Your task to perform on an android device: clear history in the chrome app Image 0: 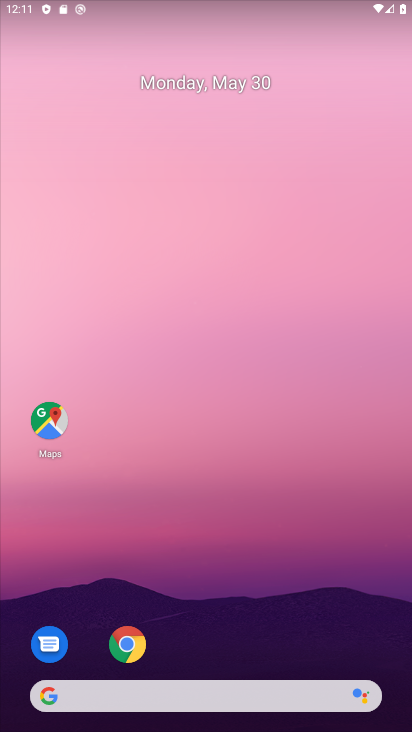
Step 0: click (134, 649)
Your task to perform on an android device: clear history in the chrome app Image 1: 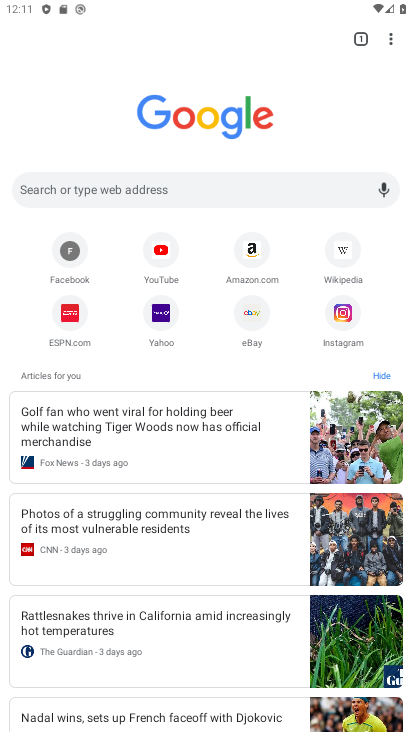
Step 1: task complete